Your task to perform on an android device: empty trash in google photos Image 0: 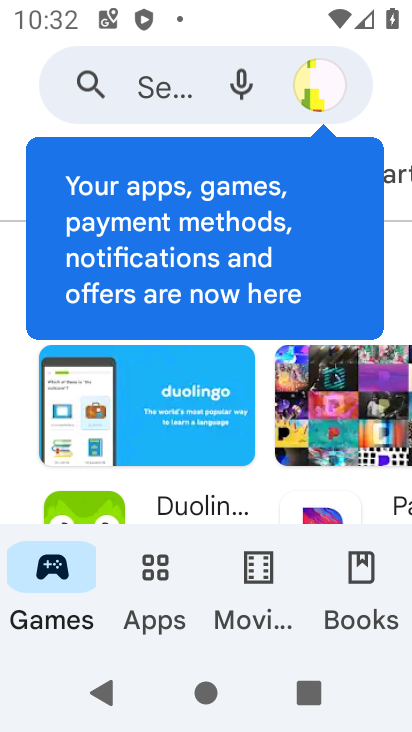
Step 0: press home button
Your task to perform on an android device: empty trash in google photos Image 1: 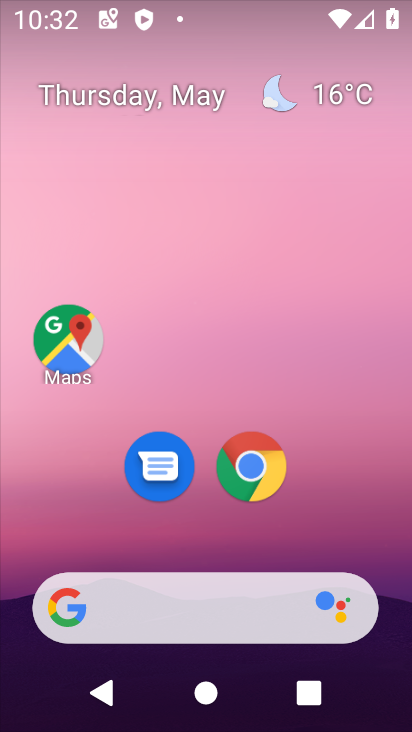
Step 1: drag from (320, 543) to (355, 237)
Your task to perform on an android device: empty trash in google photos Image 2: 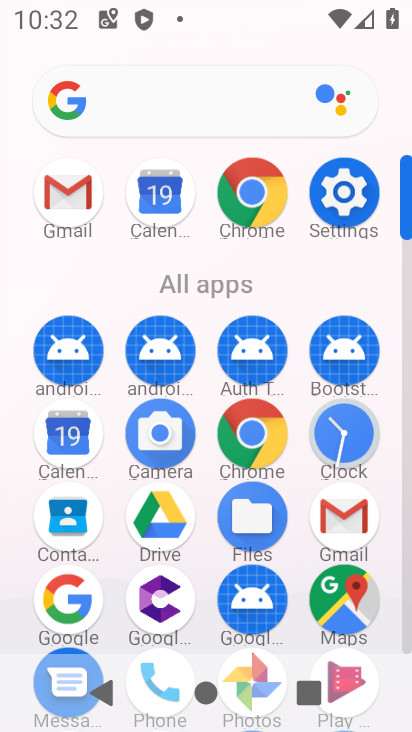
Step 2: drag from (206, 546) to (253, 256)
Your task to perform on an android device: empty trash in google photos Image 3: 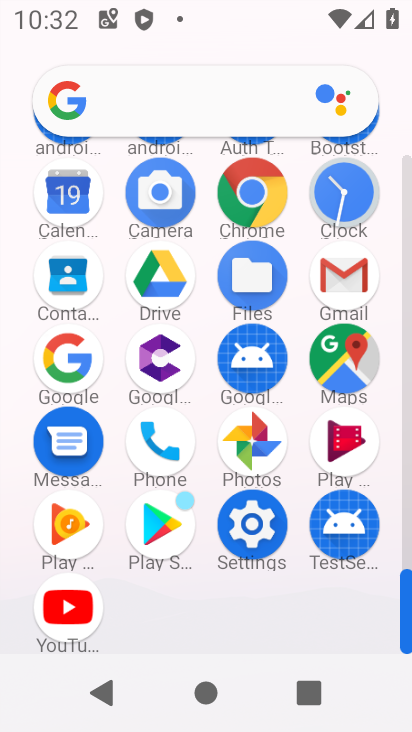
Step 3: click (257, 451)
Your task to perform on an android device: empty trash in google photos Image 4: 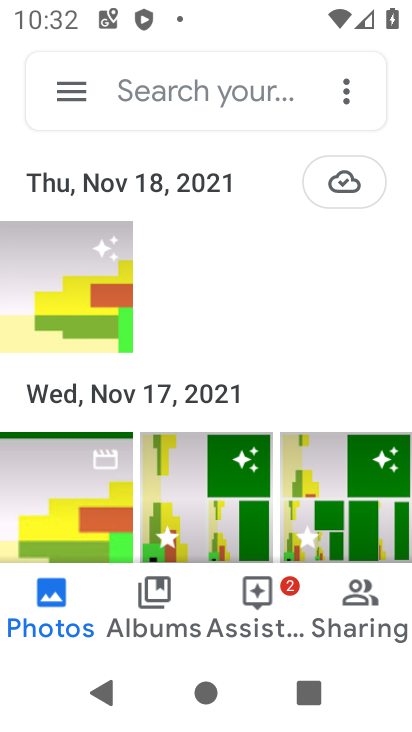
Step 4: click (62, 91)
Your task to perform on an android device: empty trash in google photos Image 5: 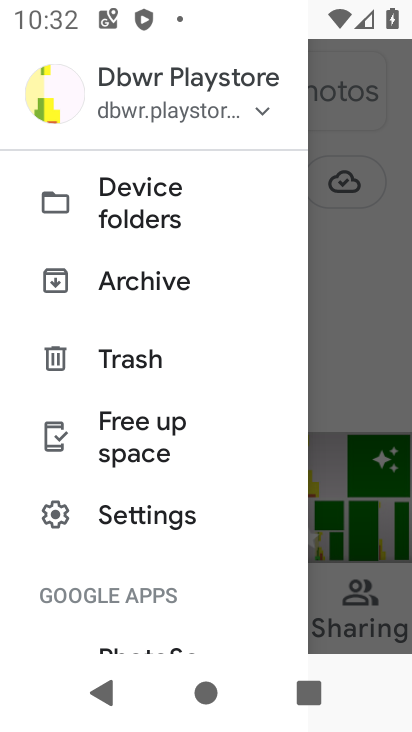
Step 5: click (130, 367)
Your task to perform on an android device: empty trash in google photos Image 6: 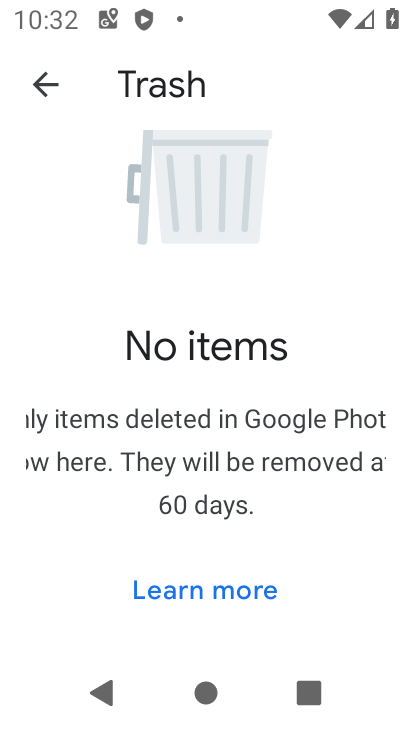
Step 6: task complete